Your task to perform on an android device: Open the map Image 0: 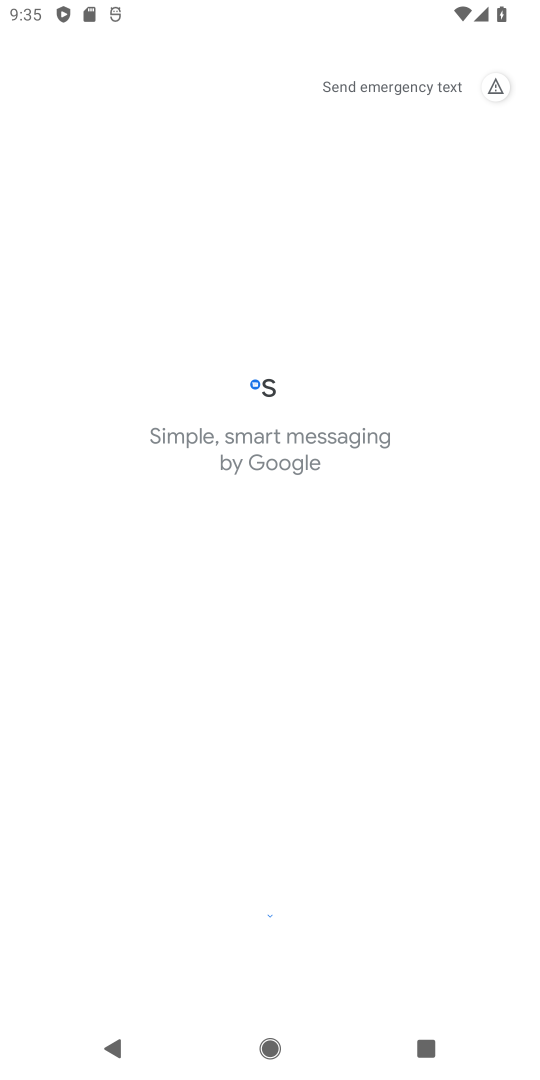
Step 0: press home button
Your task to perform on an android device: Open the map Image 1: 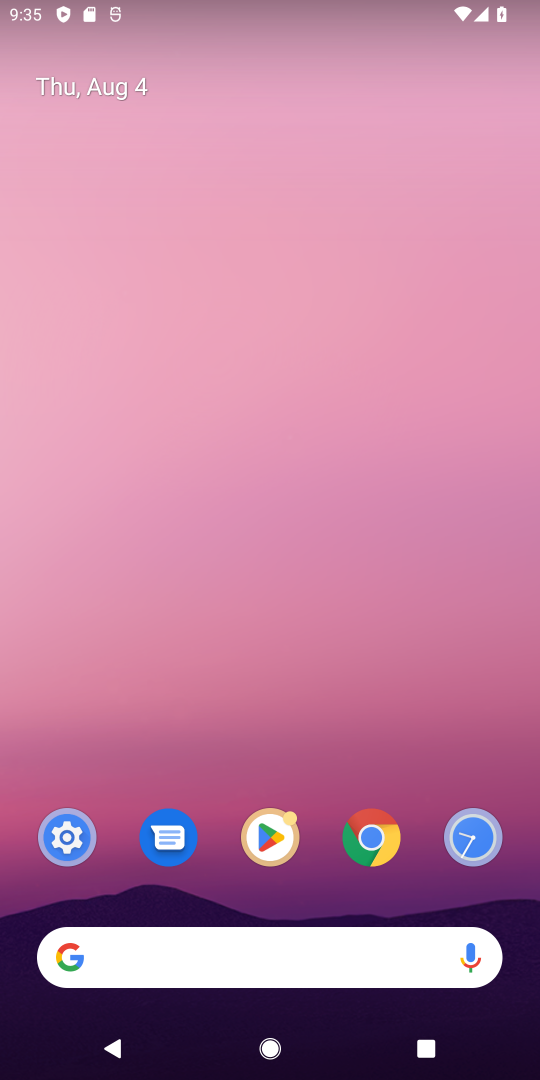
Step 1: drag from (433, 861) to (262, 190)
Your task to perform on an android device: Open the map Image 2: 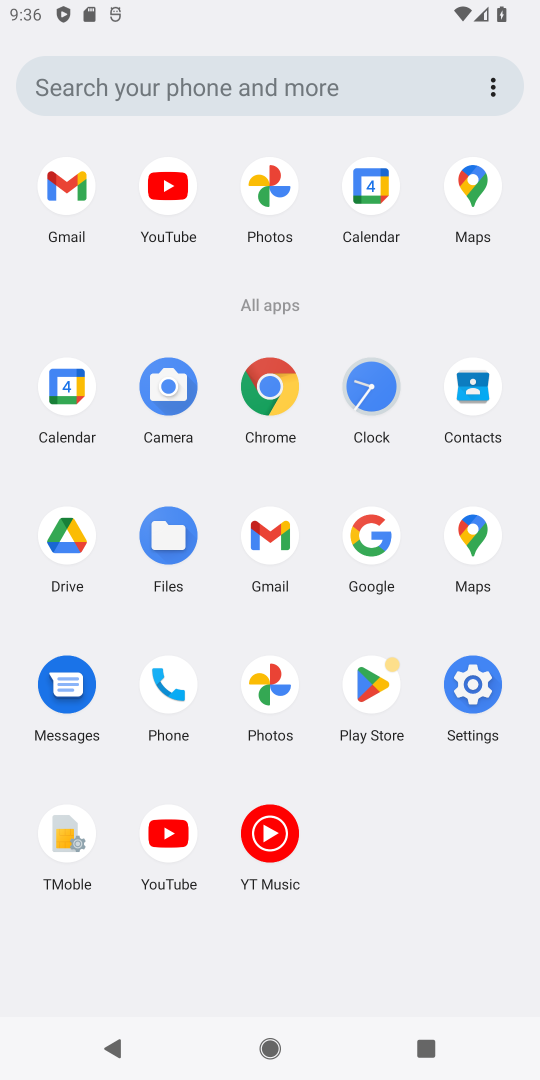
Step 2: click (487, 530)
Your task to perform on an android device: Open the map Image 3: 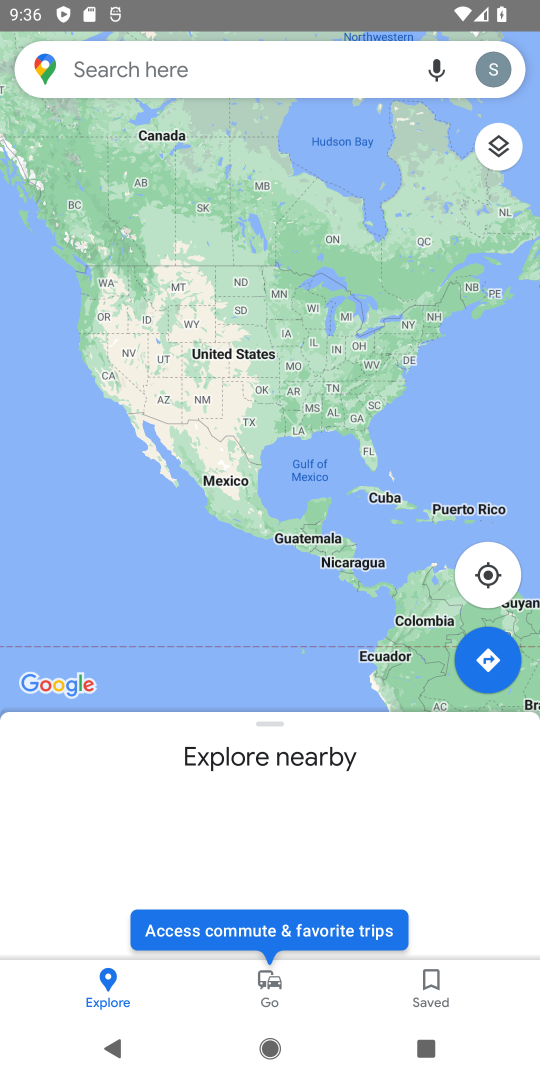
Step 3: task complete